Your task to perform on an android device: Open the web browser Image 0: 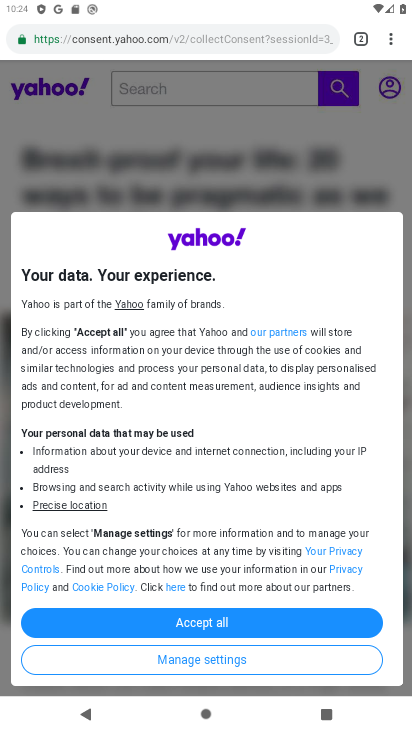
Step 0: press back button
Your task to perform on an android device: Open the web browser Image 1: 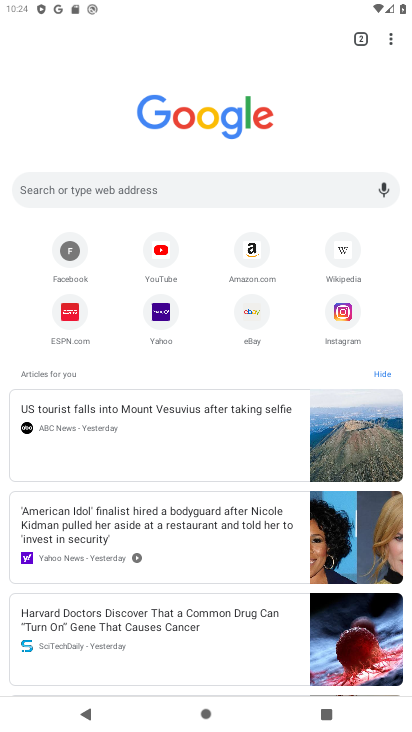
Step 1: task complete